Your task to perform on an android device: Open ESPN.com Image 0: 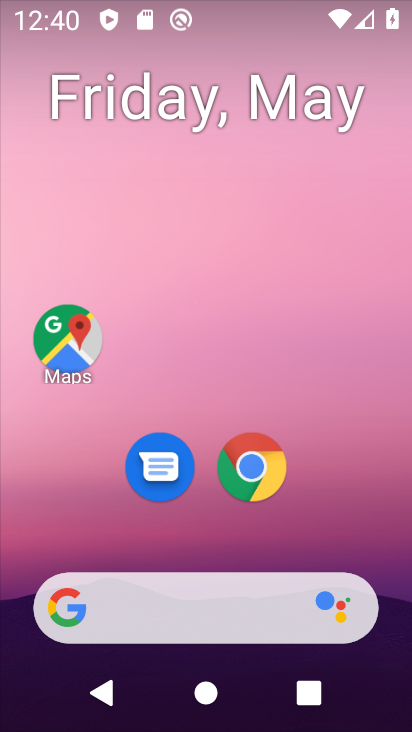
Step 0: drag from (380, 563) to (207, 67)
Your task to perform on an android device: Open ESPN.com Image 1: 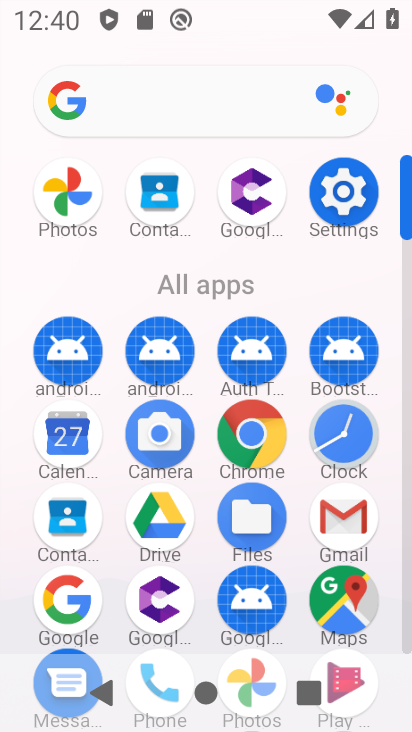
Step 1: click (254, 428)
Your task to perform on an android device: Open ESPN.com Image 2: 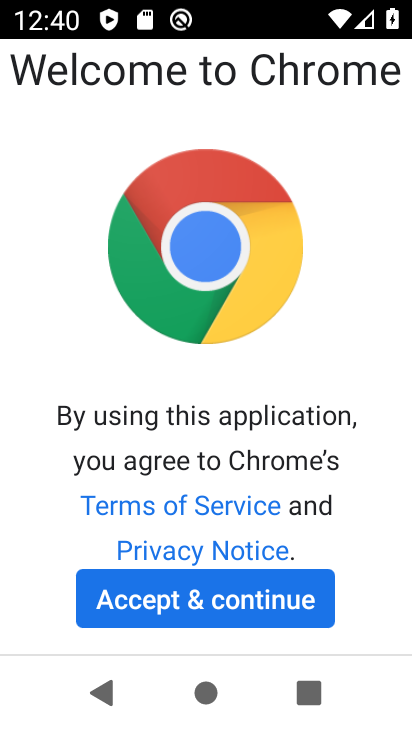
Step 2: click (256, 596)
Your task to perform on an android device: Open ESPN.com Image 3: 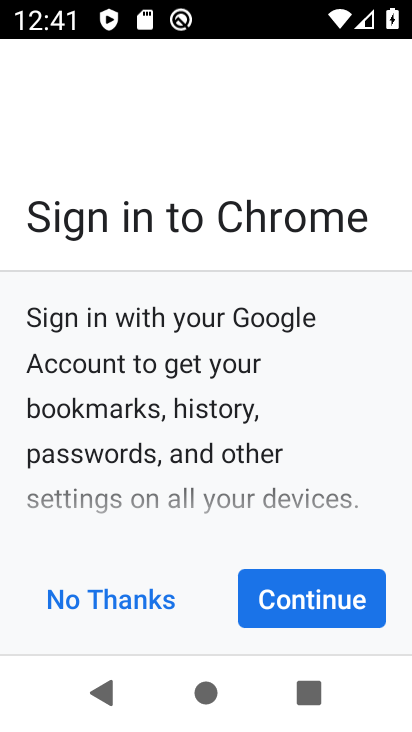
Step 3: click (335, 602)
Your task to perform on an android device: Open ESPN.com Image 4: 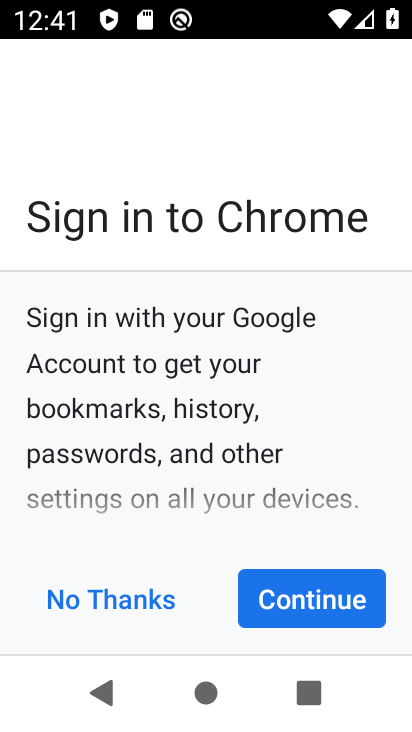
Step 4: click (335, 602)
Your task to perform on an android device: Open ESPN.com Image 5: 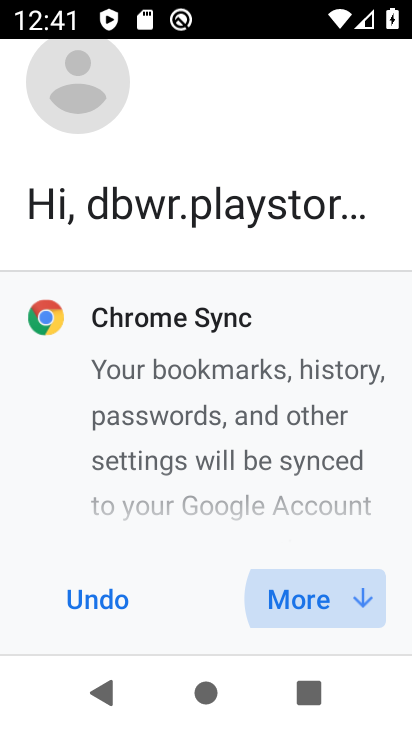
Step 5: click (335, 602)
Your task to perform on an android device: Open ESPN.com Image 6: 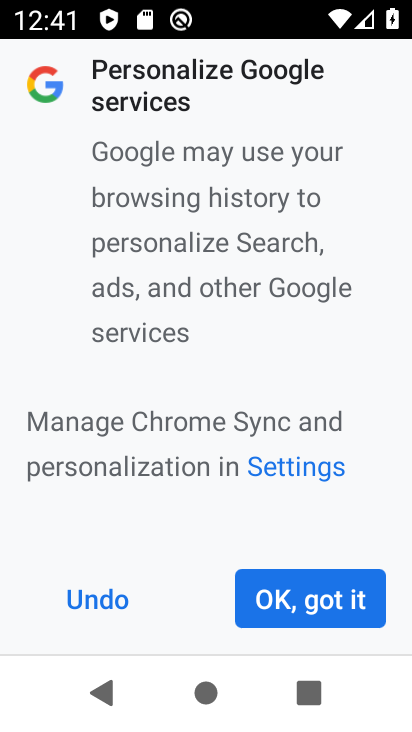
Step 6: click (335, 602)
Your task to perform on an android device: Open ESPN.com Image 7: 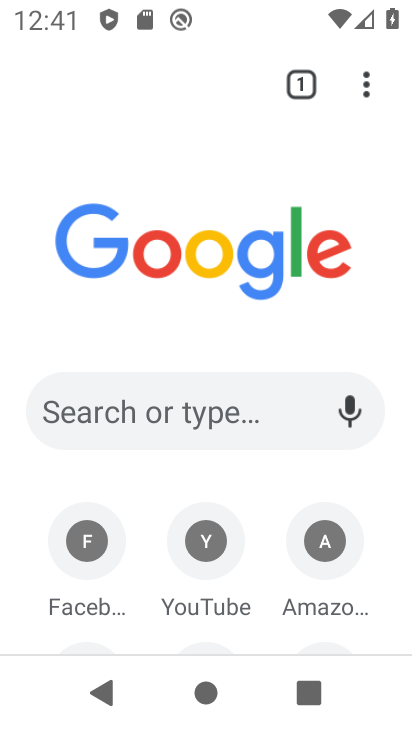
Step 7: drag from (249, 341) to (157, 102)
Your task to perform on an android device: Open ESPN.com Image 8: 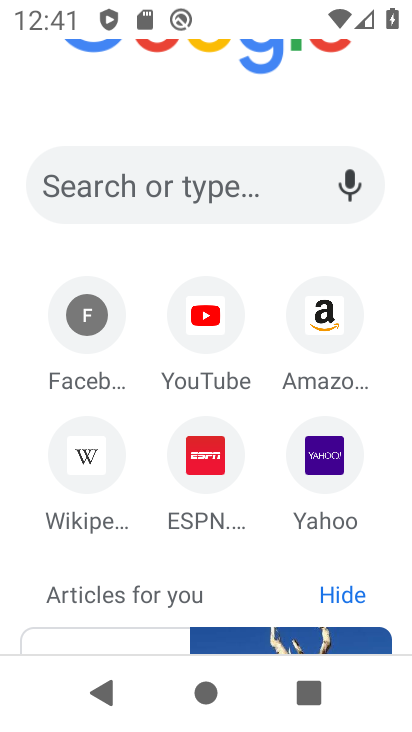
Step 8: click (195, 476)
Your task to perform on an android device: Open ESPN.com Image 9: 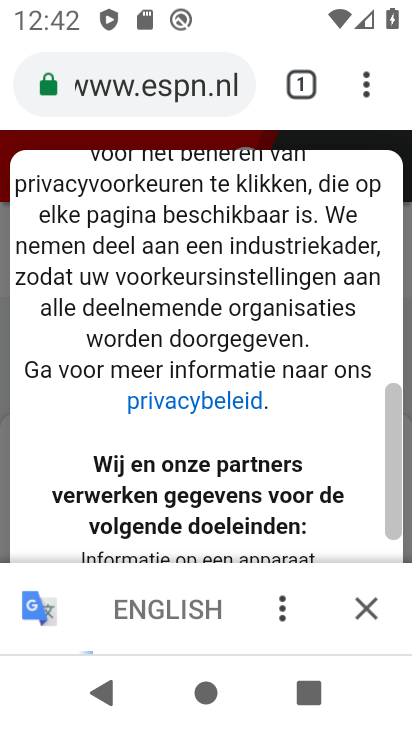
Step 9: task complete